Your task to perform on an android device: Open the phone app and click the voicemail tab. Image 0: 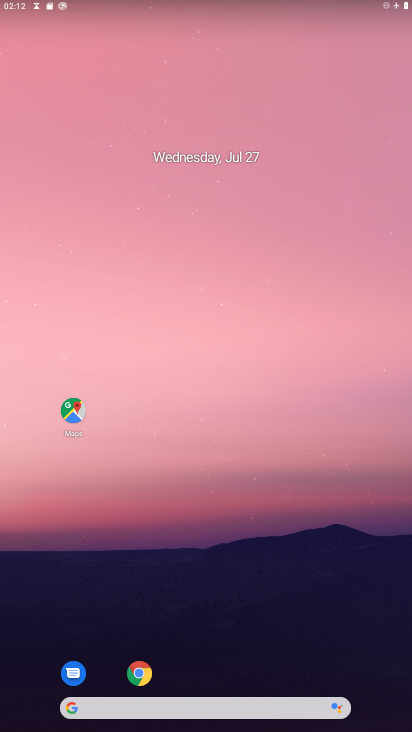
Step 0: drag from (263, 697) to (263, 253)
Your task to perform on an android device: Open the phone app and click the voicemail tab. Image 1: 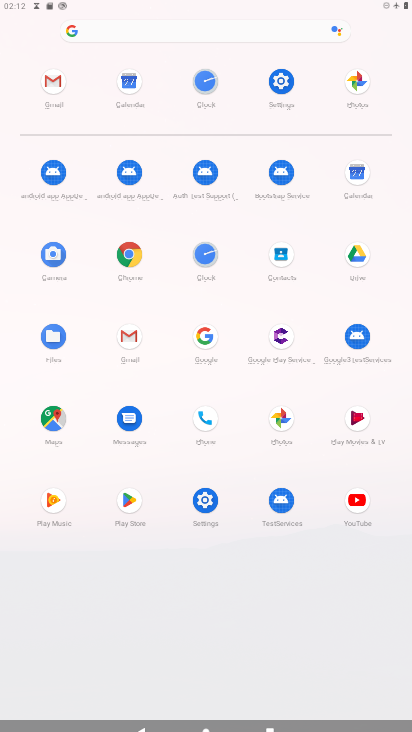
Step 1: click (194, 402)
Your task to perform on an android device: Open the phone app and click the voicemail tab. Image 2: 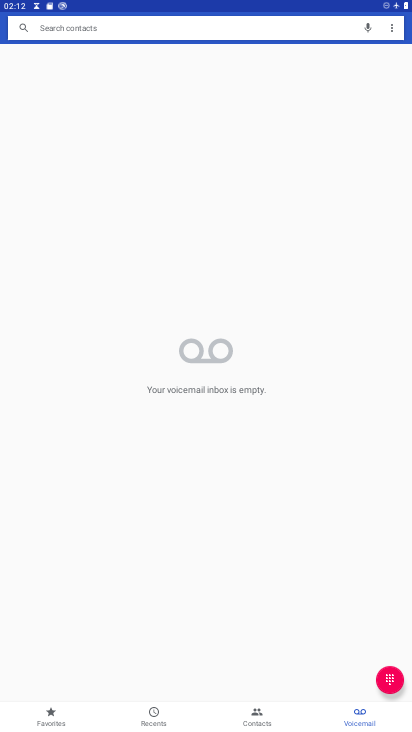
Step 2: click (352, 706)
Your task to perform on an android device: Open the phone app and click the voicemail tab. Image 3: 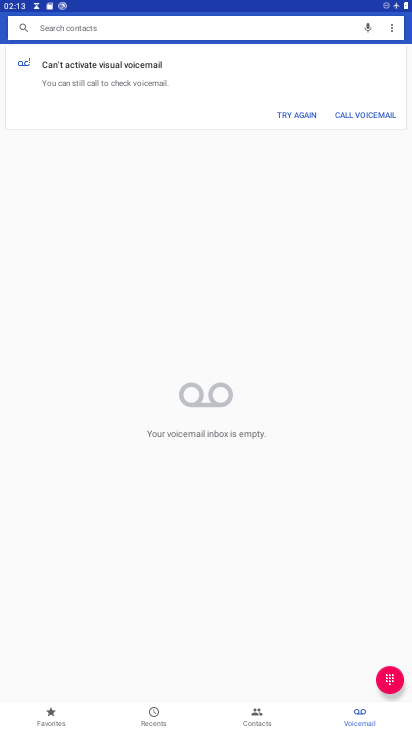
Step 3: task complete